Your task to perform on an android device: Open network settings Image 0: 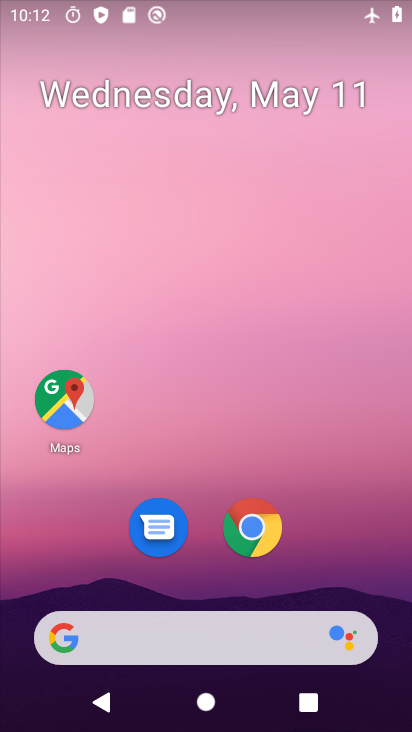
Step 0: drag from (173, 645) to (245, 193)
Your task to perform on an android device: Open network settings Image 1: 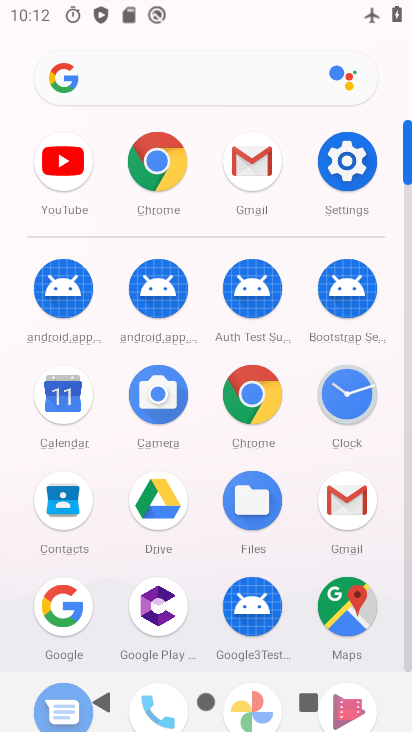
Step 1: click (359, 161)
Your task to perform on an android device: Open network settings Image 2: 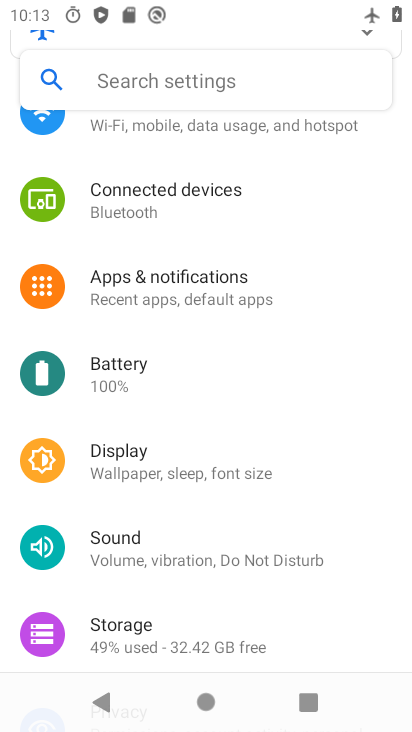
Step 2: drag from (222, 343) to (212, 387)
Your task to perform on an android device: Open network settings Image 3: 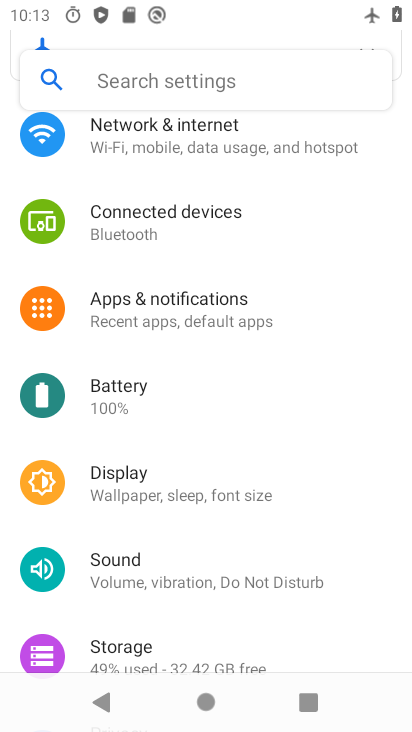
Step 3: click (230, 148)
Your task to perform on an android device: Open network settings Image 4: 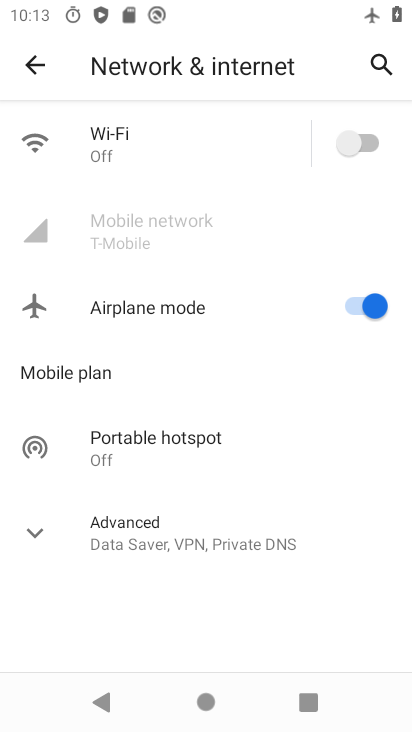
Step 4: task complete